Your task to perform on an android device: toggle show notifications on the lock screen Image 0: 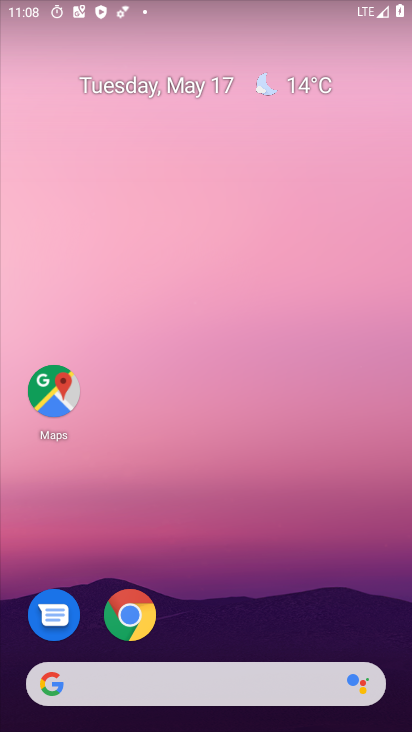
Step 0: press home button
Your task to perform on an android device: toggle show notifications on the lock screen Image 1: 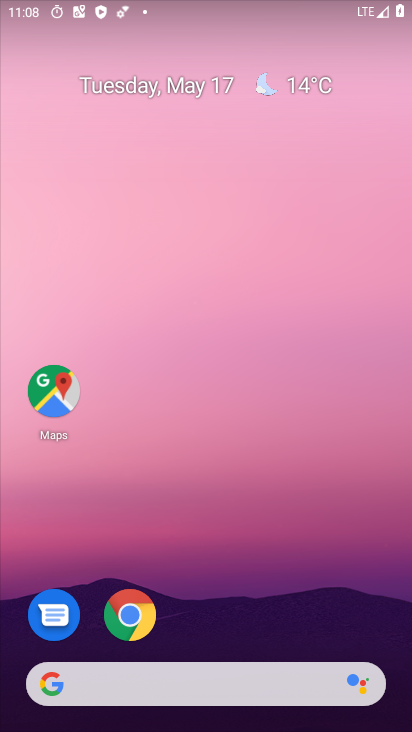
Step 1: drag from (115, 687) to (275, 176)
Your task to perform on an android device: toggle show notifications on the lock screen Image 2: 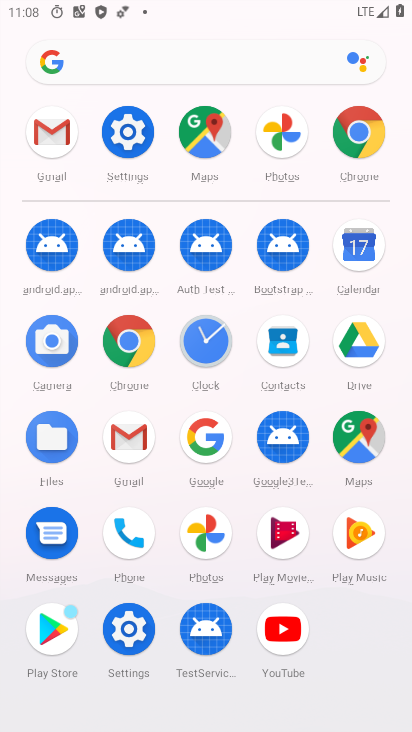
Step 2: click (136, 140)
Your task to perform on an android device: toggle show notifications on the lock screen Image 3: 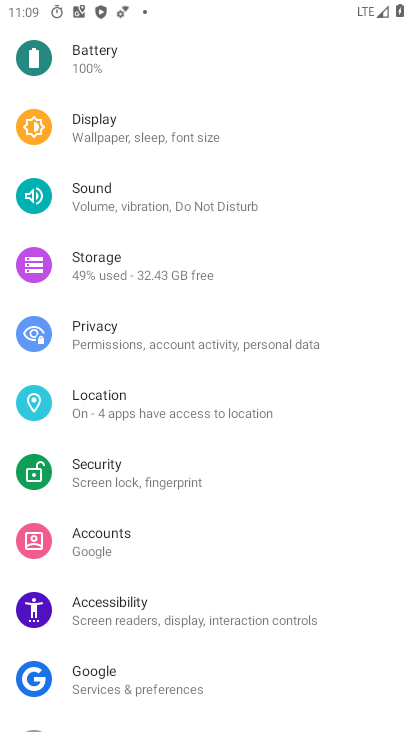
Step 3: drag from (321, 136) to (275, 484)
Your task to perform on an android device: toggle show notifications on the lock screen Image 4: 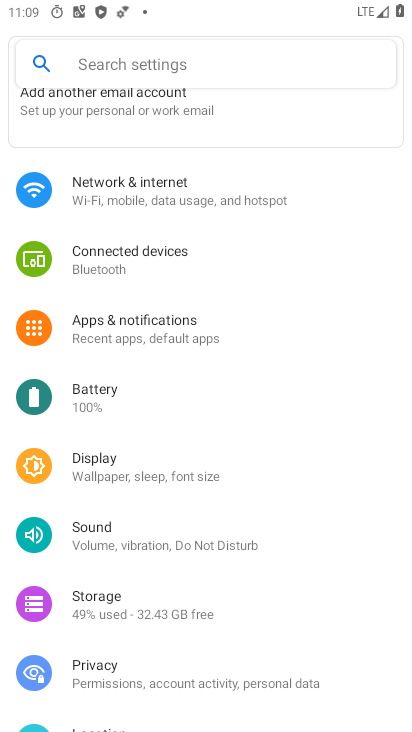
Step 4: click (179, 334)
Your task to perform on an android device: toggle show notifications on the lock screen Image 5: 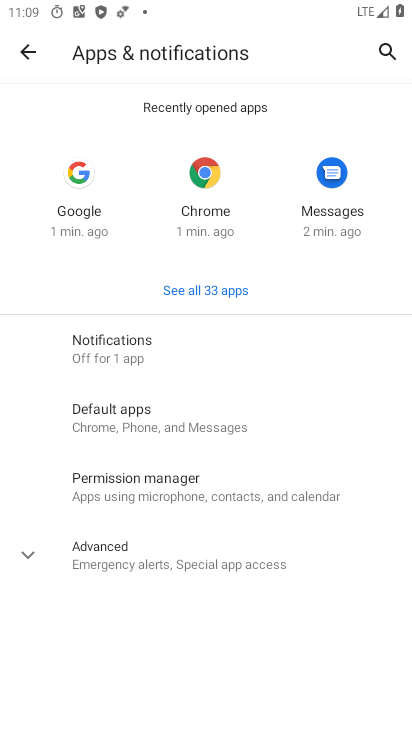
Step 5: click (140, 350)
Your task to perform on an android device: toggle show notifications on the lock screen Image 6: 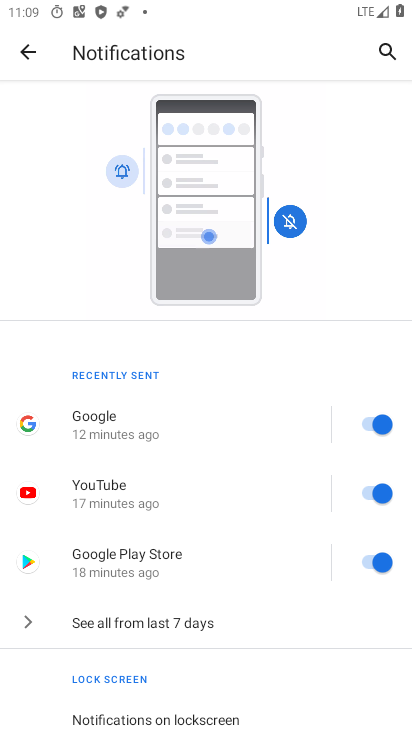
Step 6: drag from (216, 512) to (359, 85)
Your task to perform on an android device: toggle show notifications on the lock screen Image 7: 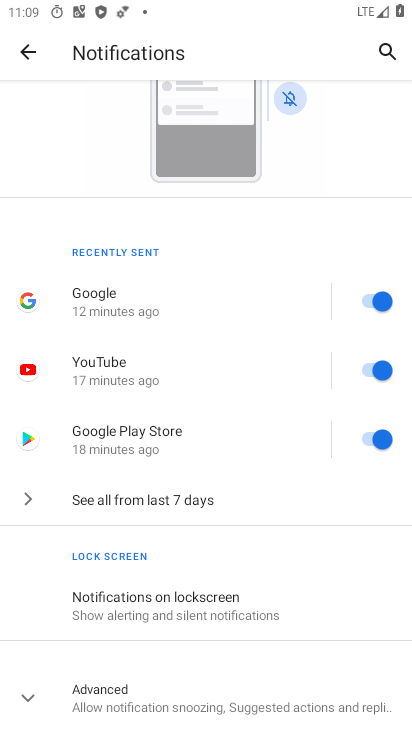
Step 7: click (172, 596)
Your task to perform on an android device: toggle show notifications on the lock screen Image 8: 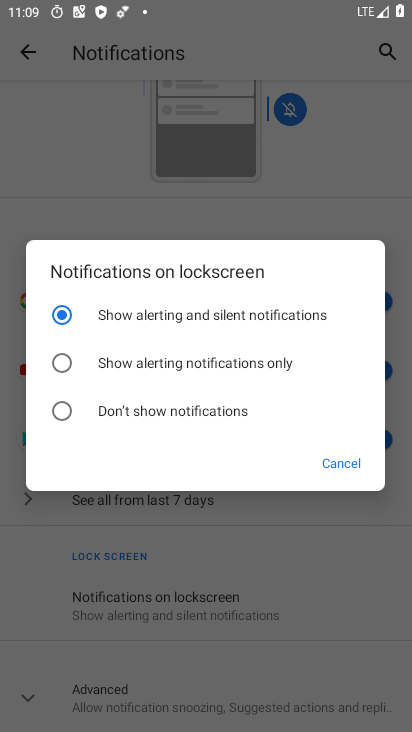
Step 8: click (54, 405)
Your task to perform on an android device: toggle show notifications on the lock screen Image 9: 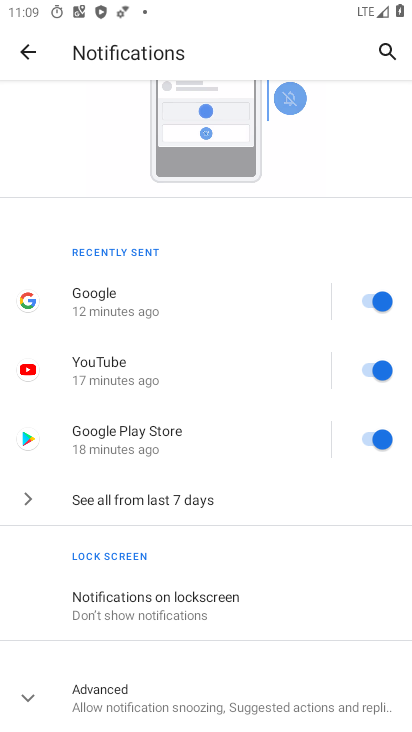
Step 9: task complete